Your task to perform on an android device: Open accessibility settings Image 0: 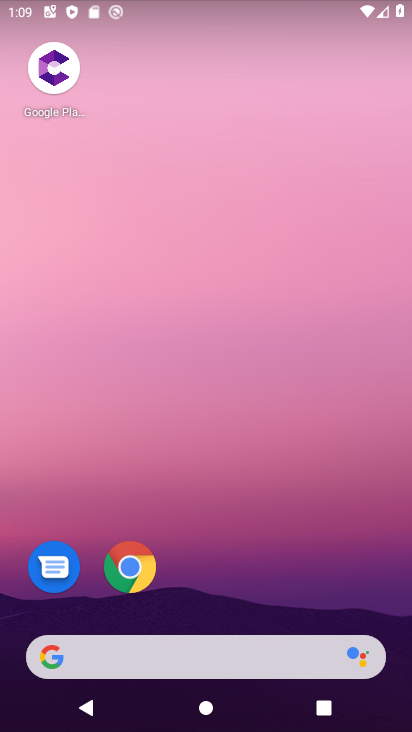
Step 0: drag from (227, 514) to (227, 190)
Your task to perform on an android device: Open accessibility settings Image 1: 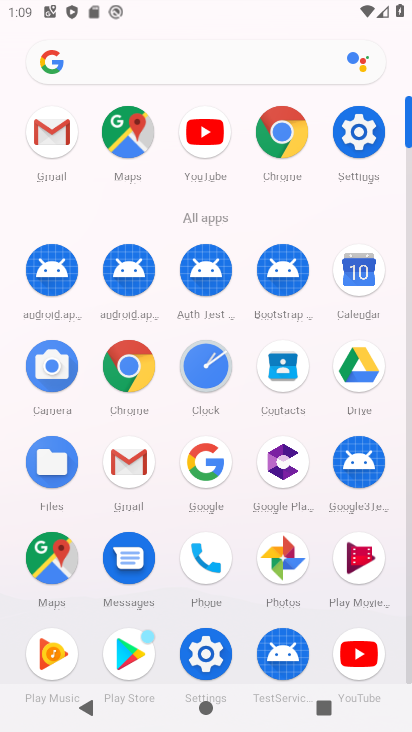
Step 1: click (346, 135)
Your task to perform on an android device: Open accessibility settings Image 2: 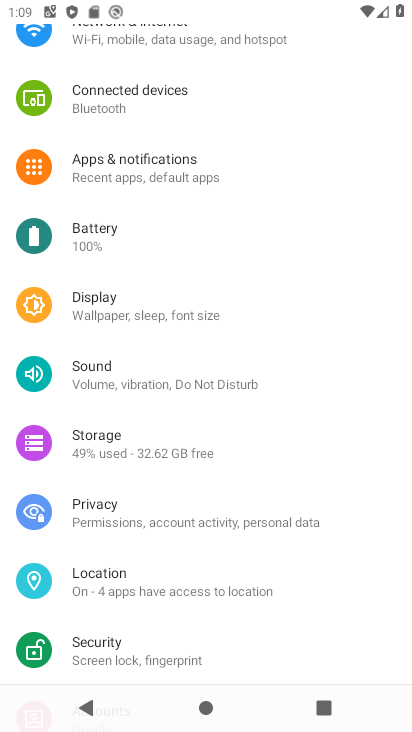
Step 2: drag from (278, 524) to (191, 148)
Your task to perform on an android device: Open accessibility settings Image 3: 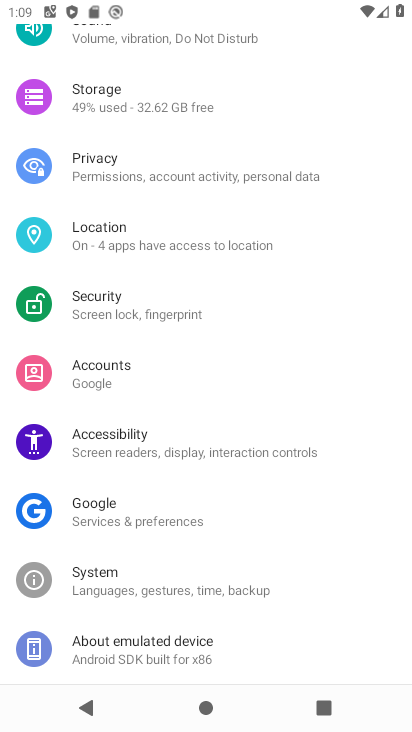
Step 3: click (202, 454)
Your task to perform on an android device: Open accessibility settings Image 4: 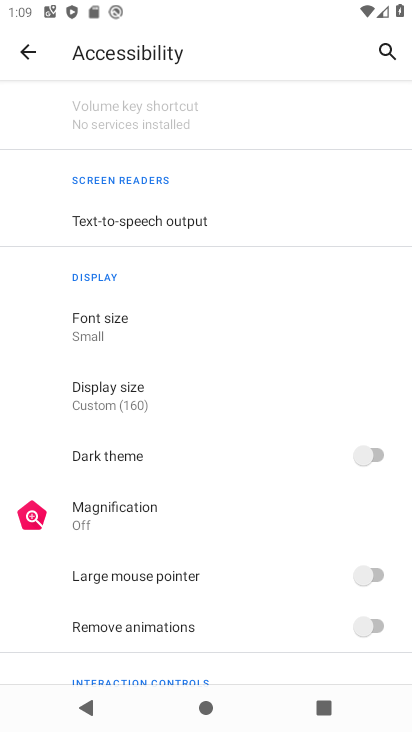
Step 4: task complete